Your task to perform on an android device: Clear the shopping cart on newegg. Search for "logitech g pro" on newegg, select the first entry, and add it to the cart. Image 0: 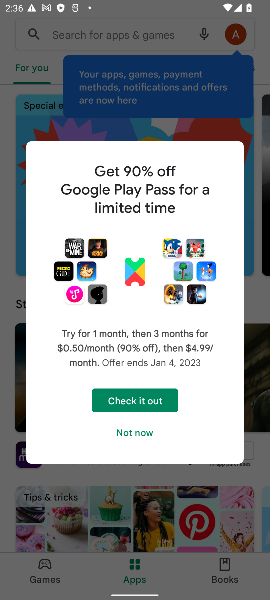
Step 0: press home button
Your task to perform on an android device: Clear the shopping cart on newegg. Search for "logitech g pro" on newegg, select the first entry, and add it to the cart. Image 1: 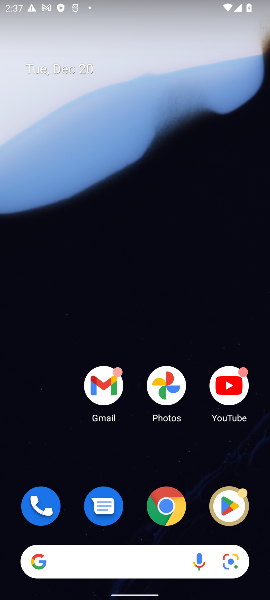
Step 1: click (172, 506)
Your task to perform on an android device: Clear the shopping cart on newegg. Search for "logitech g pro" on newegg, select the first entry, and add it to the cart. Image 2: 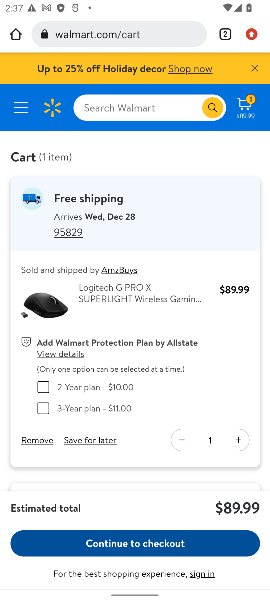
Step 2: click (128, 32)
Your task to perform on an android device: Clear the shopping cart on newegg. Search for "logitech g pro" on newegg, select the first entry, and add it to the cart. Image 3: 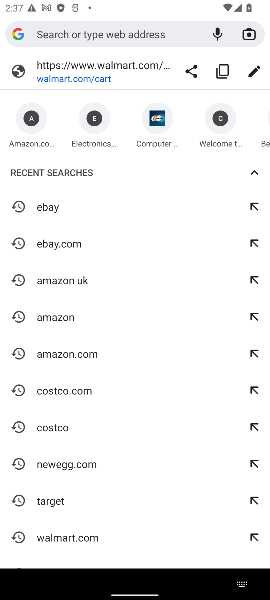
Step 3: click (78, 469)
Your task to perform on an android device: Clear the shopping cart on newegg. Search for "logitech g pro" on newegg, select the first entry, and add it to the cart. Image 4: 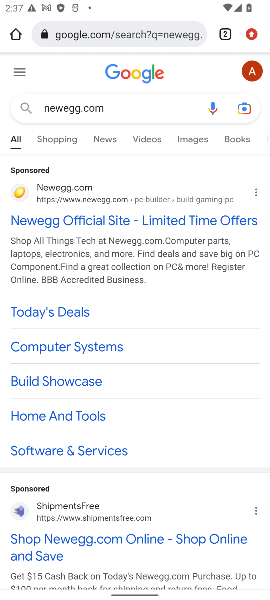
Step 4: click (131, 220)
Your task to perform on an android device: Clear the shopping cart on newegg. Search for "logitech g pro" on newegg, select the first entry, and add it to the cart. Image 5: 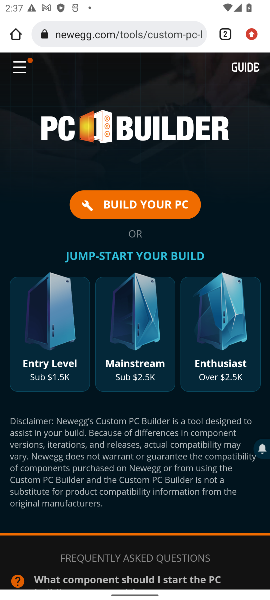
Step 5: click (142, 35)
Your task to perform on an android device: Clear the shopping cart on newegg. Search for "logitech g pro" on newegg, select the first entry, and add it to the cart. Image 6: 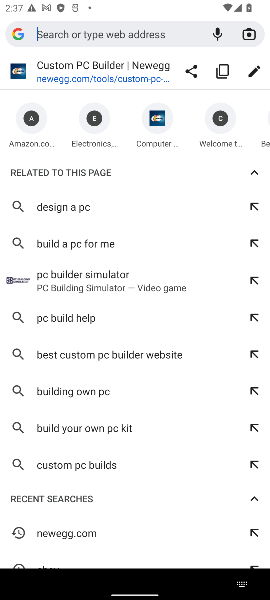
Step 6: click (80, 533)
Your task to perform on an android device: Clear the shopping cart on newegg. Search for "logitech g pro" on newegg, select the first entry, and add it to the cart. Image 7: 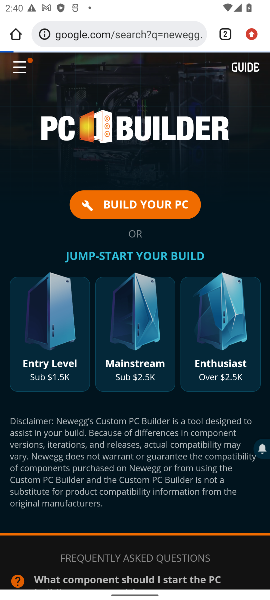
Step 7: click (136, 34)
Your task to perform on an android device: Clear the shopping cart on newegg. Search for "logitech g pro" on newegg, select the first entry, and add it to the cart. Image 8: 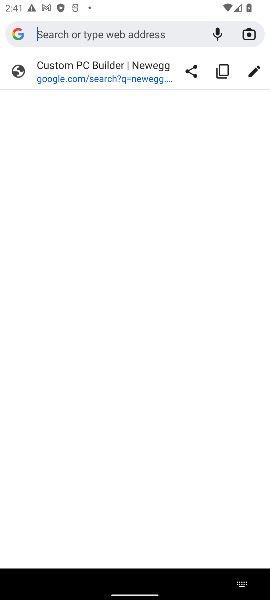
Step 8: type "newegg"
Your task to perform on an android device: Clear the shopping cart on newegg. Search for "logitech g pro" on newegg, select the first entry, and add it to the cart. Image 9: 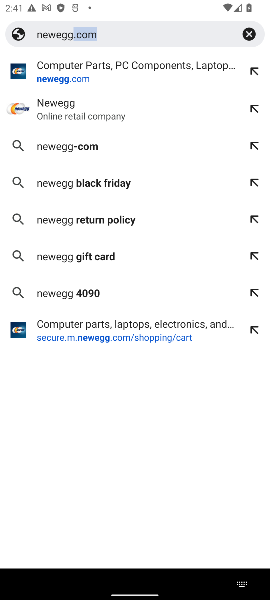
Step 9: click (104, 74)
Your task to perform on an android device: Clear the shopping cart on newegg. Search for "logitech g pro" on newegg, select the first entry, and add it to the cart. Image 10: 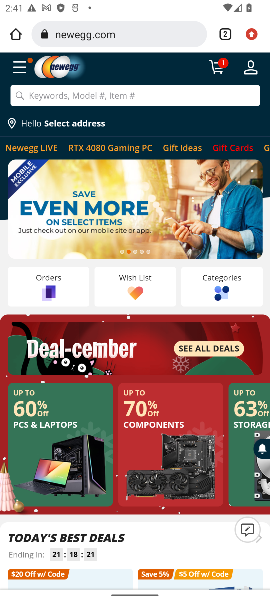
Step 10: click (130, 92)
Your task to perform on an android device: Clear the shopping cart on newegg. Search for "logitech g pro" on newegg, select the first entry, and add it to the cart. Image 11: 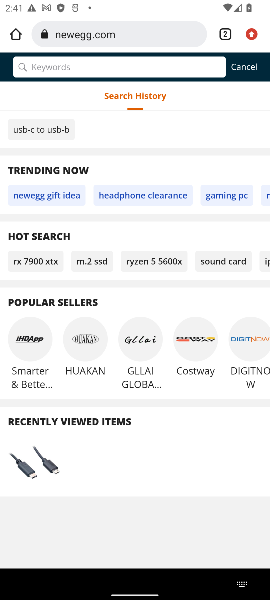
Step 11: click (124, 34)
Your task to perform on an android device: Clear the shopping cart on newegg. Search for "logitech g pro" on newegg, select the first entry, and add it to the cart. Image 12: 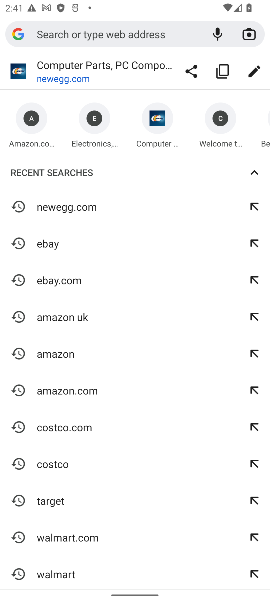
Step 12: click (48, 71)
Your task to perform on an android device: Clear the shopping cart on newegg. Search for "logitech g pro" on newegg, select the first entry, and add it to the cart. Image 13: 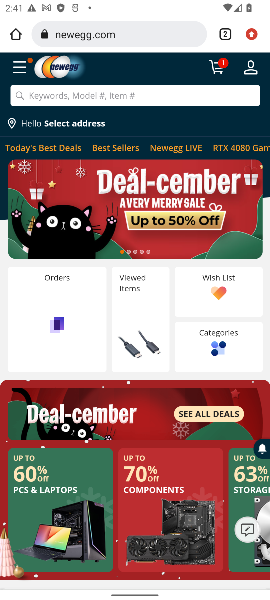
Step 13: click (219, 67)
Your task to perform on an android device: Clear the shopping cart on newegg. Search for "logitech g pro" on newegg, select the first entry, and add it to the cart. Image 14: 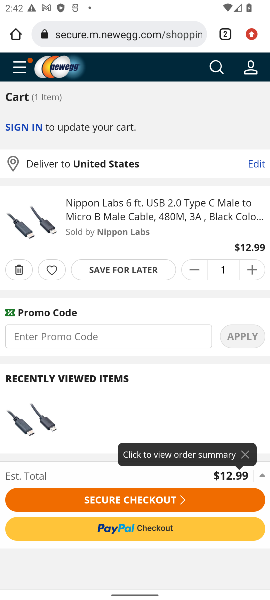
Step 14: click (17, 270)
Your task to perform on an android device: Clear the shopping cart on newegg. Search for "logitech g pro" on newegg, select the first entry, and add it to the cart. Image 15: 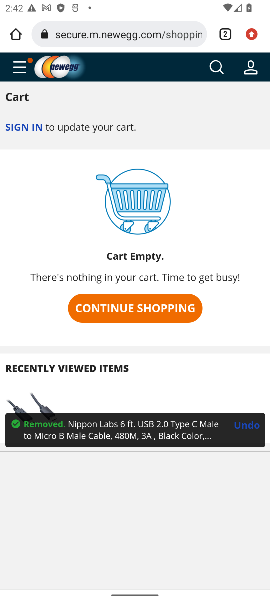
Step 15: click (216, 66)
Your task to perform on an android device: Clear the shopping cart on newegg. Search for "logitech g pro" on newegg, select the first entry, and add it to the cart. Image 16: 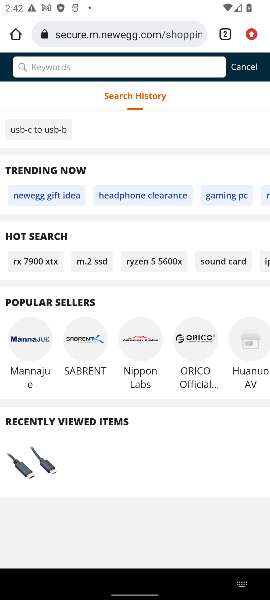
Step 16: click (141, 70)
Your task to perform on an android device: Clear the shopping cart on newegg. Search for "logitech g pro" on newegg, select the first entry, and add it to the cart. Image 17: 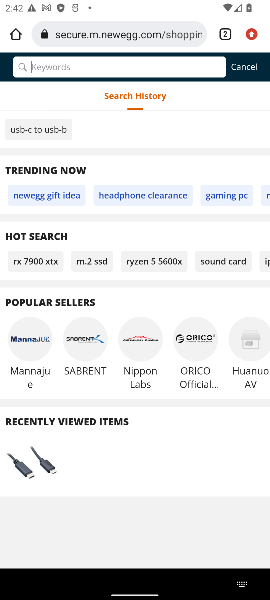
Step 17: type "logitech g pro"
Your task to perform on an android device: Clear the shopping cart on newegg. Search for "logitech g pro" on newegg, select the first entry, and add it to the cart. Image 18: 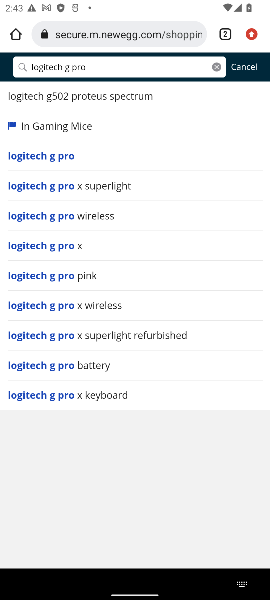
Step 18: click (107, 98)
Your task to perform on an android device: Clear the shopping cart on newegg. Search for "logitech g pro" on newegg, select the first entry, and add it to the cart. Image 19: 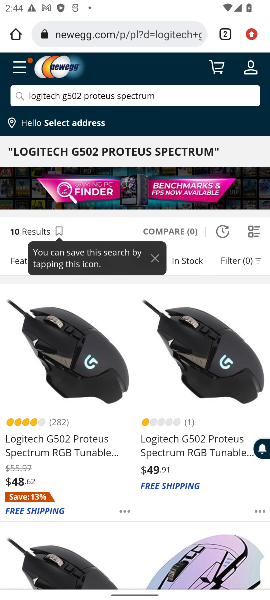
Step 19: click (73, 379)
Your task to perform on an android device: Clear the shopping cart on newegg. Search for "logitech g pro" on newegg, select the first entry, and add it to the cart. Image 20: 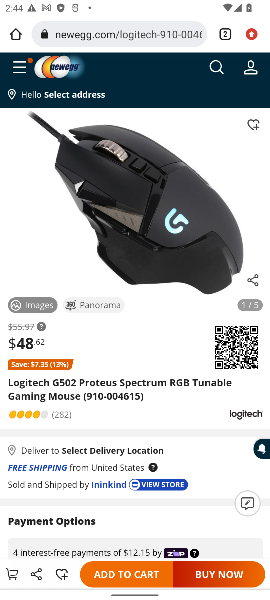
Step 20: click (123, 578)
Your task to perform on an android device: Clear the shopping cart on newegg. Search for "logitech g pro" on newegg, select the first entry, and add it to the cart. Image 21: 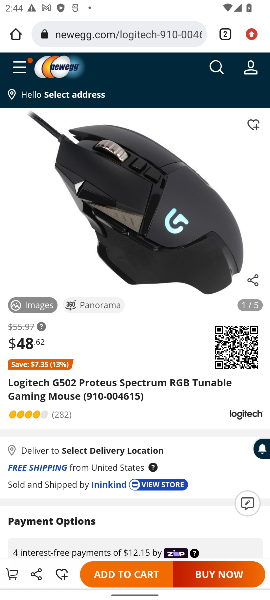
Step 21: task complete